Your task to perform on an android device: How big is a giraffe? Image 0: 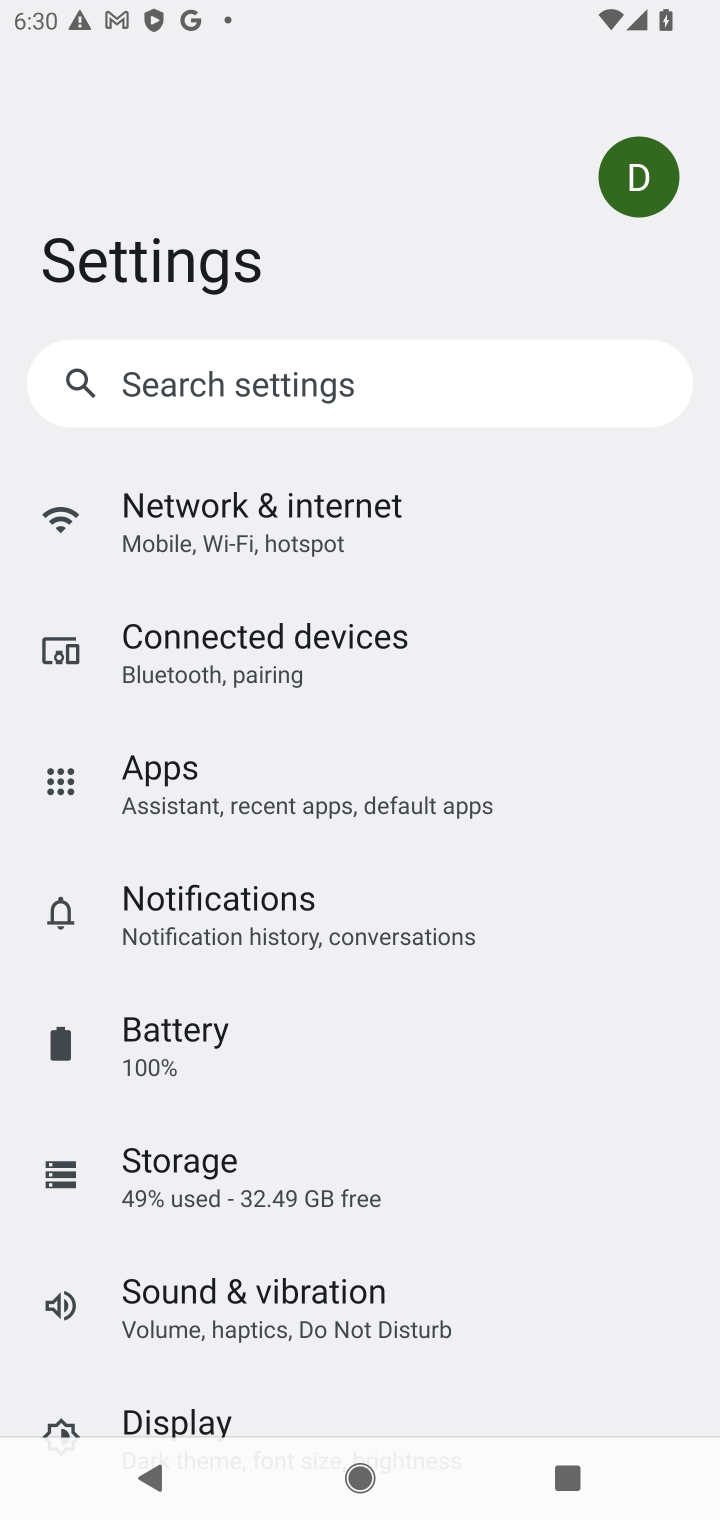
Step 0: press home button
Your task to perform on an android device: How big is a giraffe? Image 1: 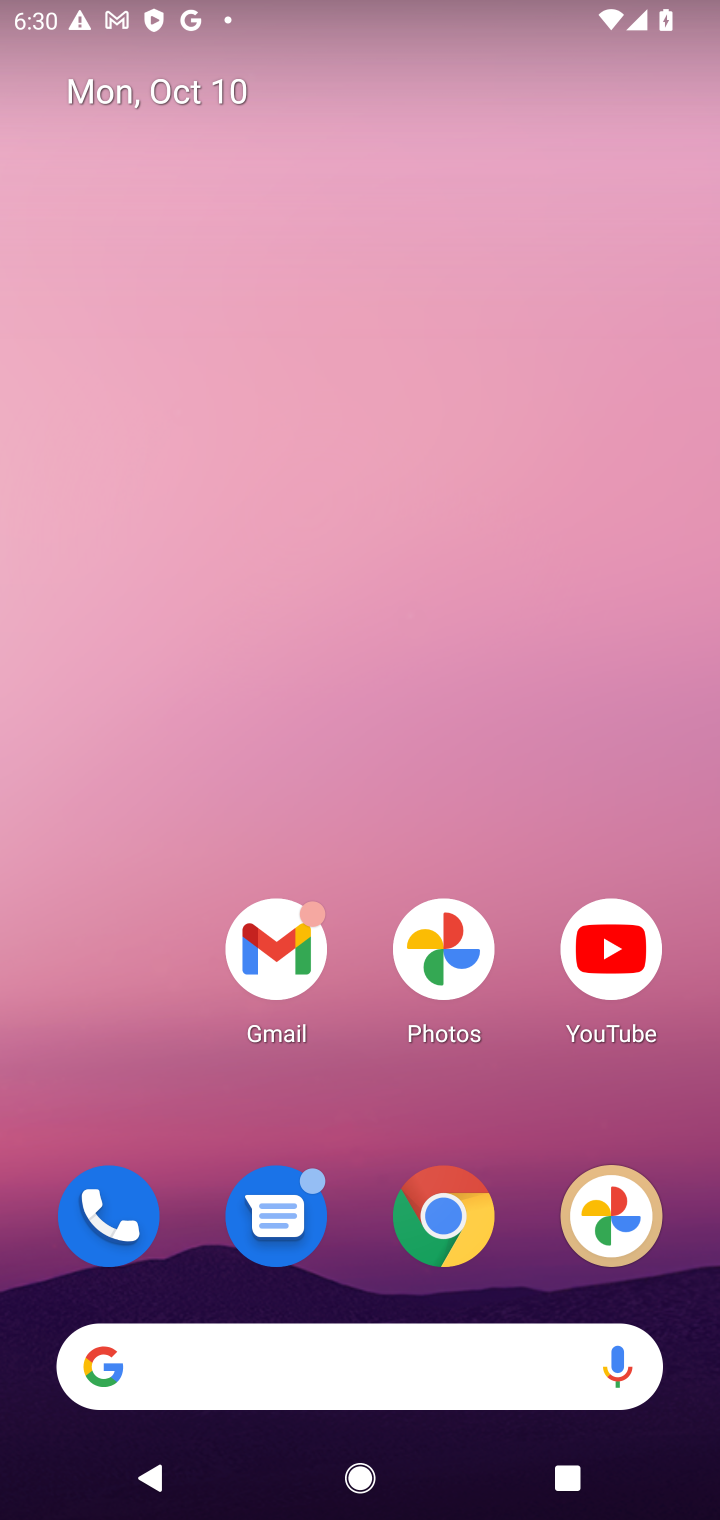
Step 1: drag from (351, 1348) to (321, 459)
Your task to perform on an android device: How big is a giraffe? Image 2: 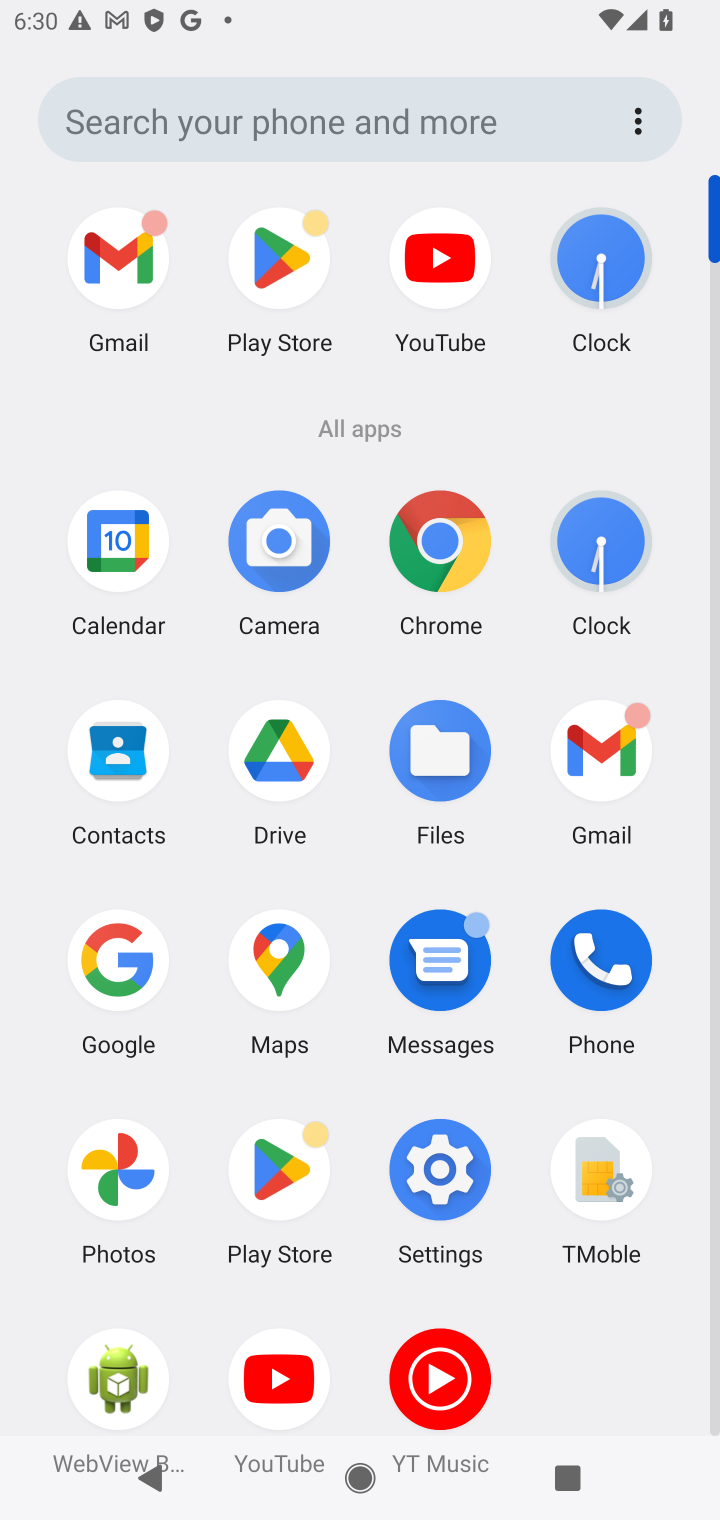
Step 2: click (104, 966)
Your task to perform on an android device: How big is a giraffe? Image 3: 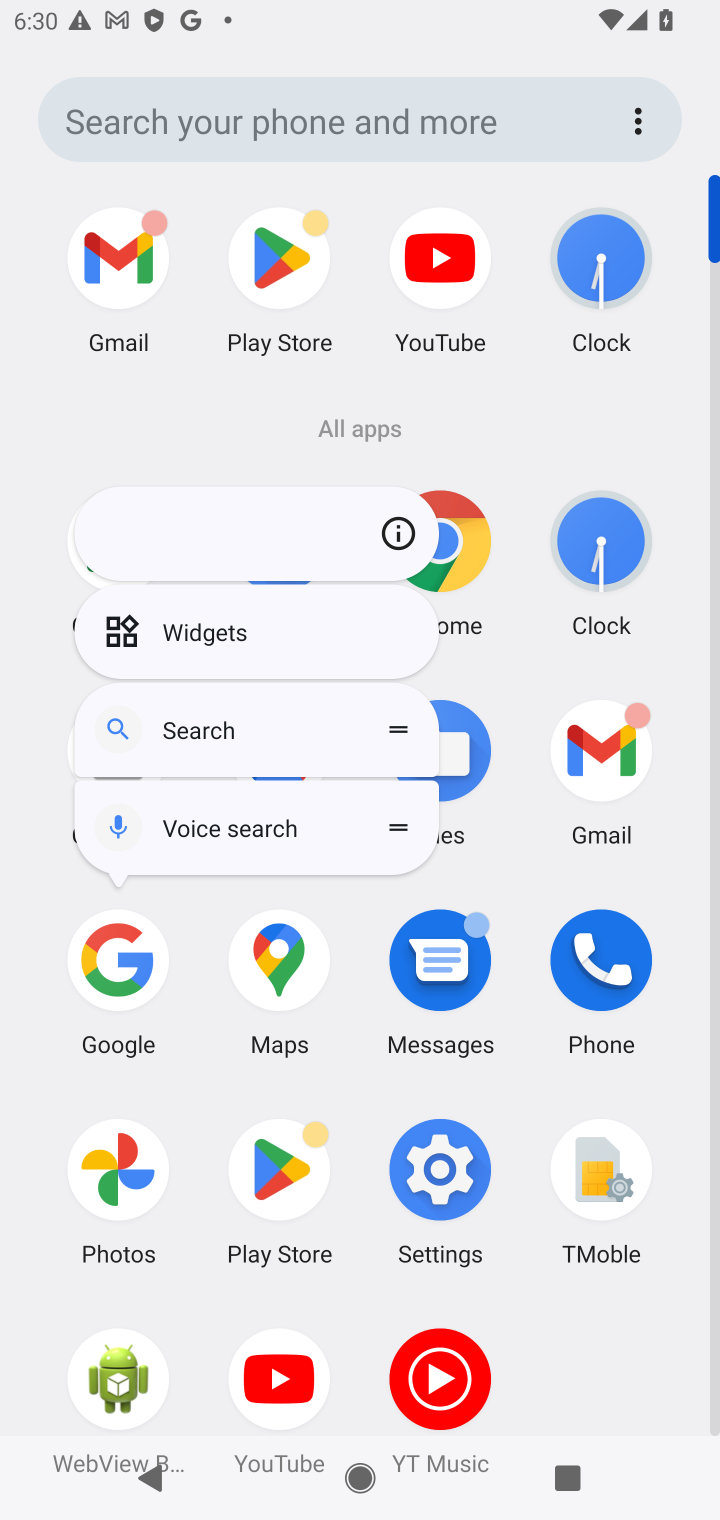
Step 3: click (108, 964)
Your task to perform on an android device: How big is a giraffe? Image 4: 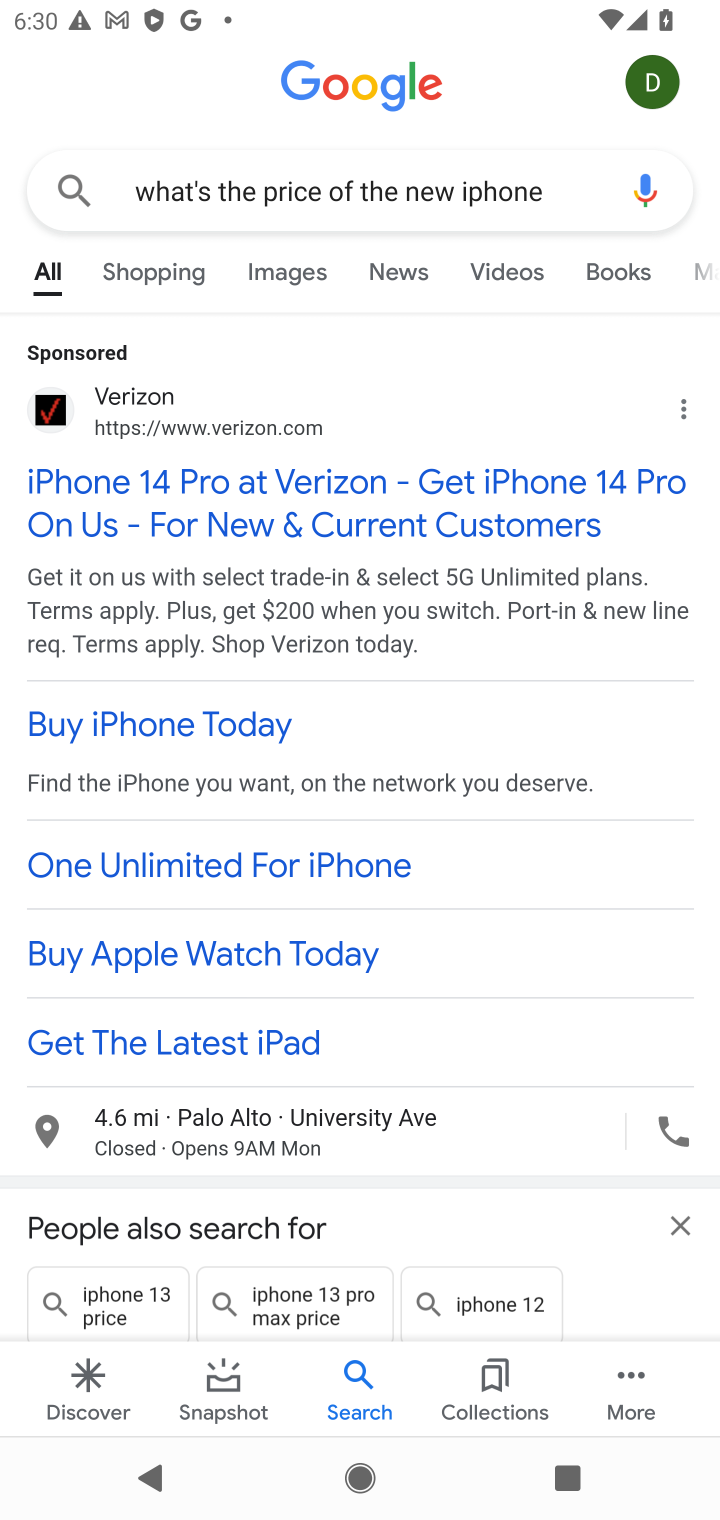
Step 4: click (315, 208)
Your task to perform on an android device: How big is a giraffe? Image 5: 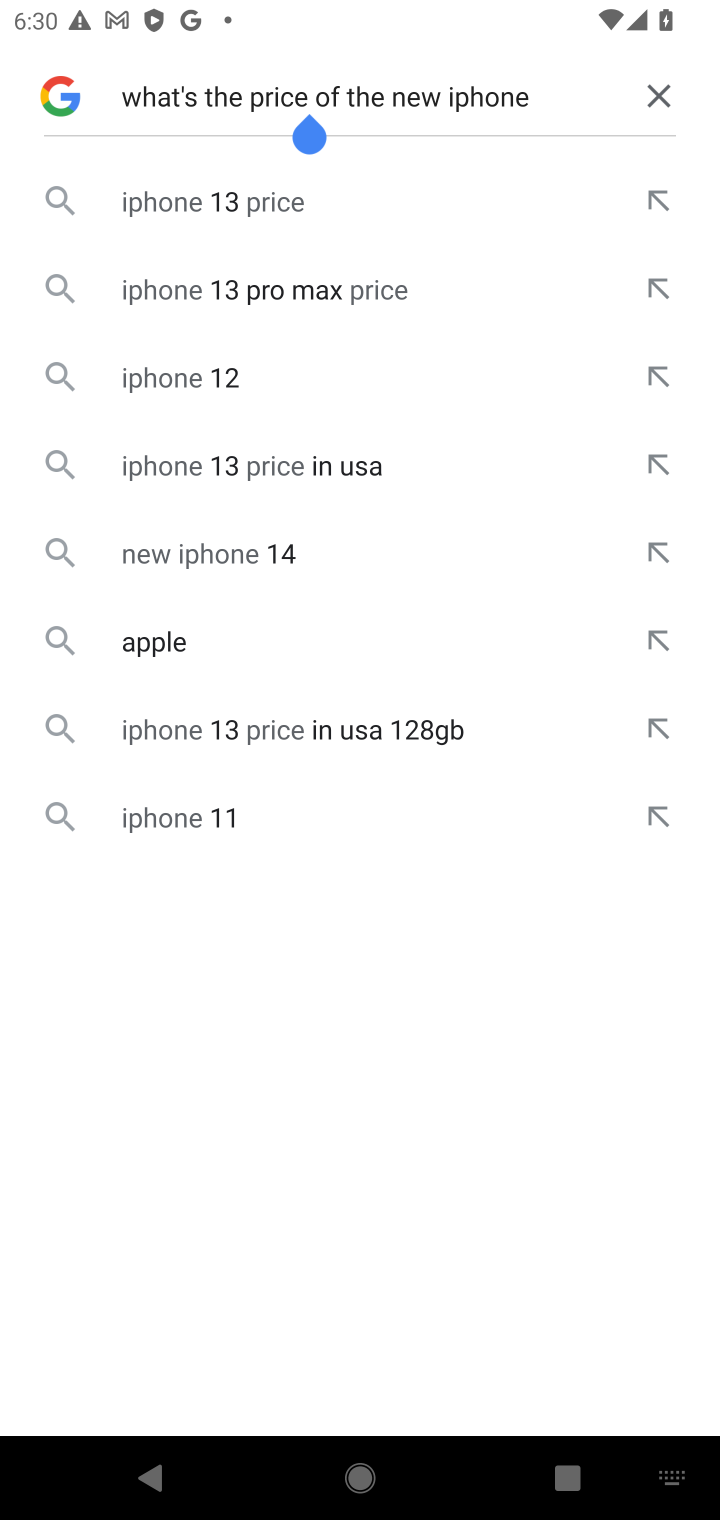
Step 5: click (662, 110)
Your task to perform on an android device: How big is a giraffe? Image 6: 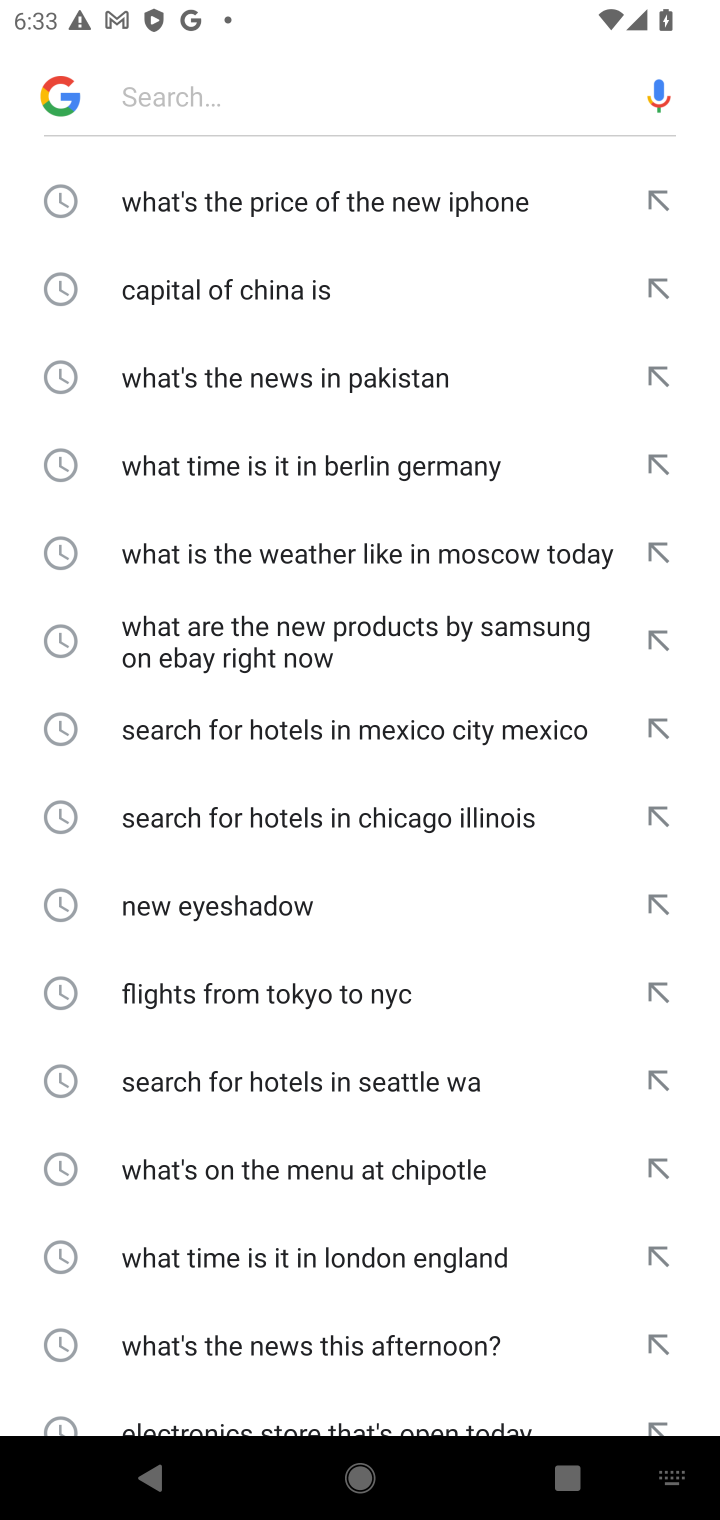
Step 6: type "How big is a giraffe?"
Your task to perform on an android device: How big is a giraffe? Image 7: 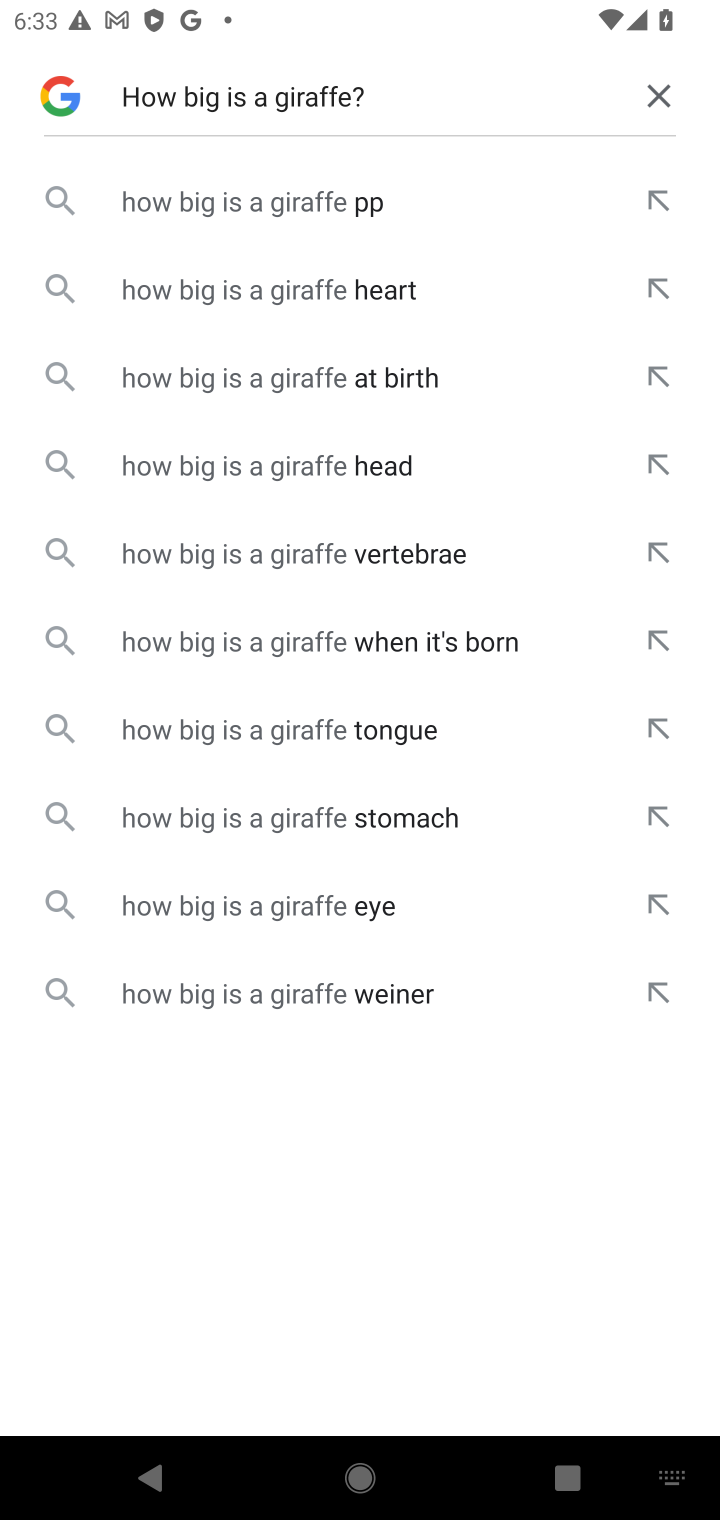
Step 7: click (268, 209)
Your task to perform on an android device: How big is a giraffe? Image 8: 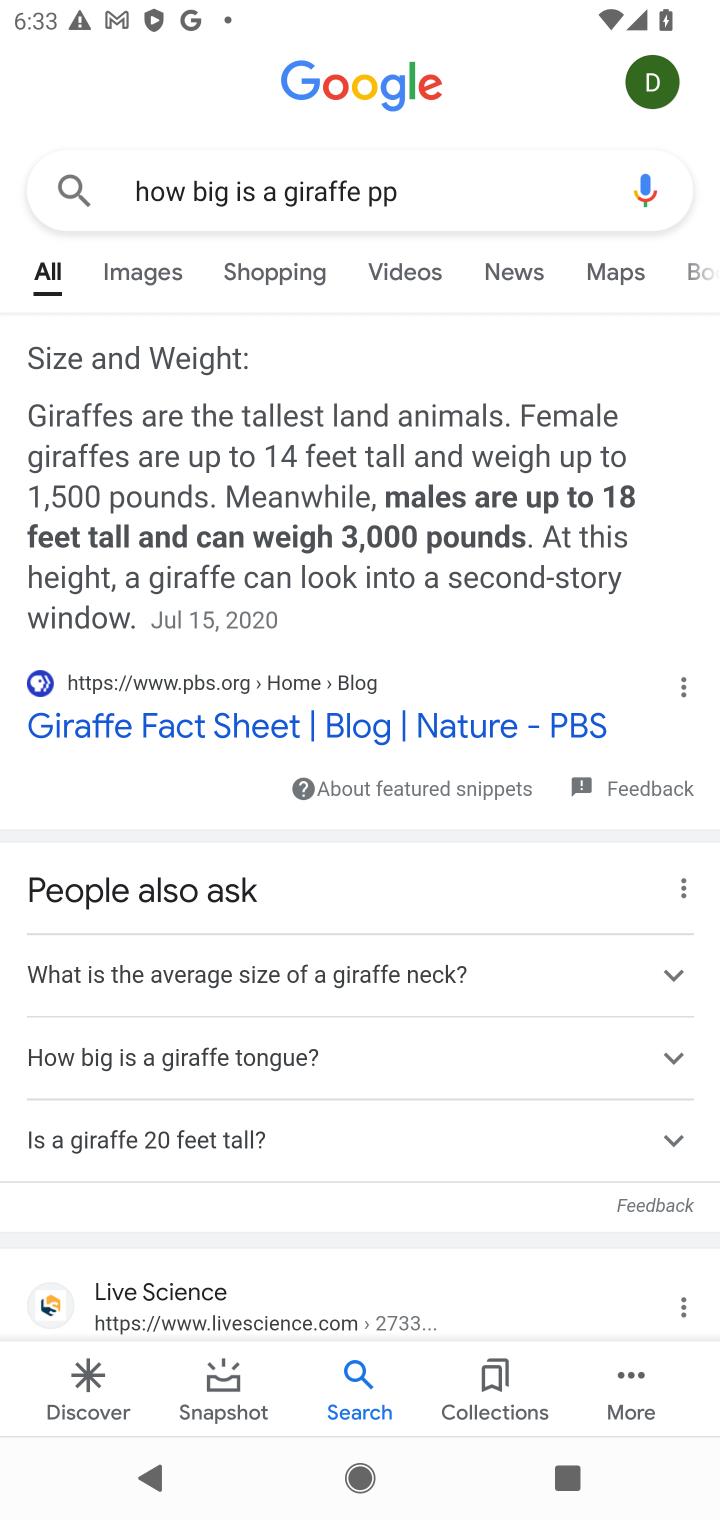
Step 8: task complete